Your task to perform on an android device: Search for seafood restaurants on Google Maps Image 0: 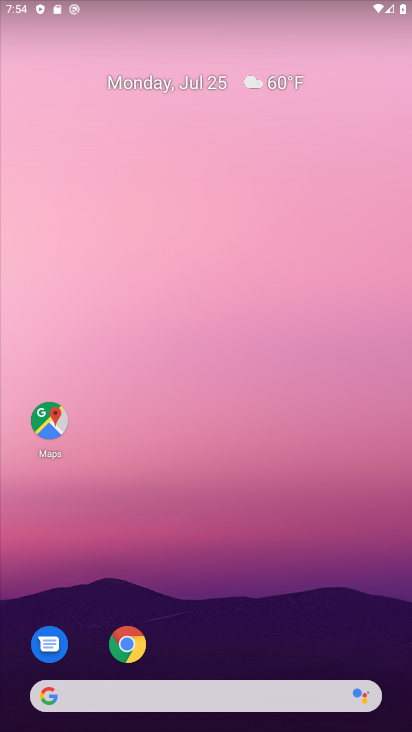
Step 0: click (46, 424)
Your task to perform on an android device: Search for seafood restaurants on Google Maps Image 1: 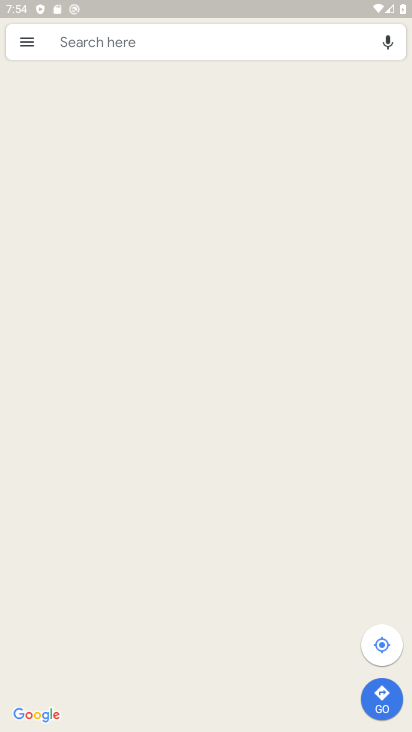
Step 1: click (208, 36)
Your task to perform on an android device: Search for seafood restaurants on Google Maps Image 2: 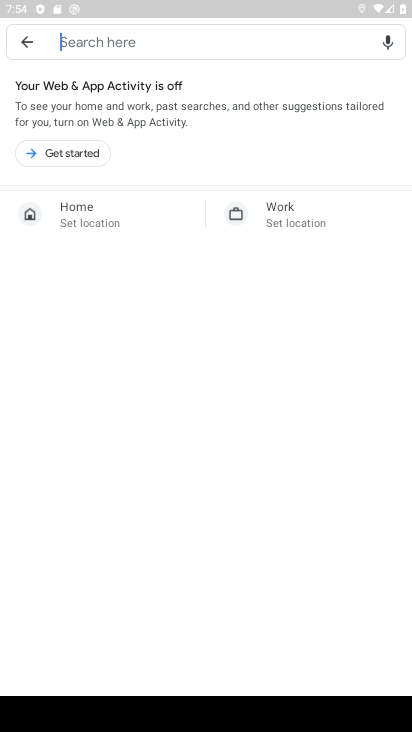
Step 2: type "seafood restaurants"
Your task to perform on an android device: Search for seafood restaurants on Google Maps Image 3: 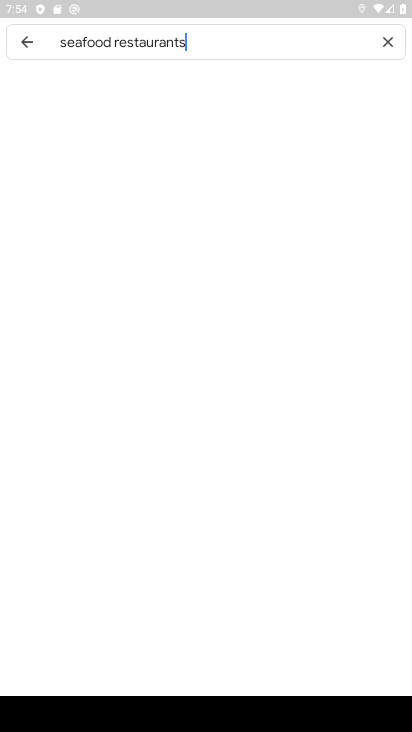
Step 3: press enter
Your task to perform on an android device: Search for seafood restaurants on Google Maps Image 4: 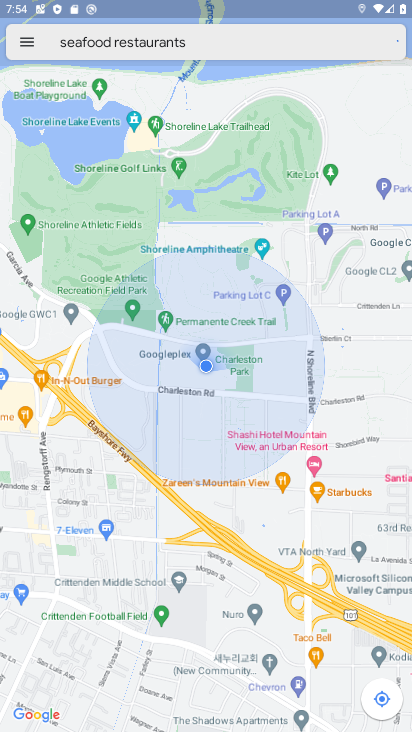
Step 4: task complete